Your task to perform on an android device: see sites visited before in the chrome app Image 0: 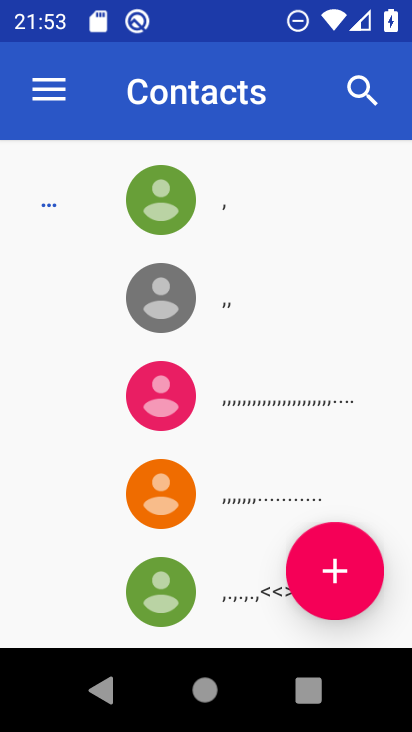
Step 0: press home button
Your task to perform on an android device: see sites visited before in the chrome app Image 1: 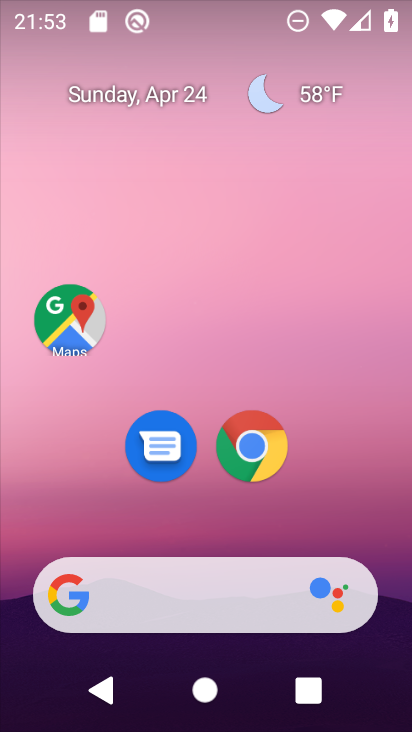
Step 1: click (242, 457)
Your task to perform on an android device: see sites visited before in the chrome app Image 2: 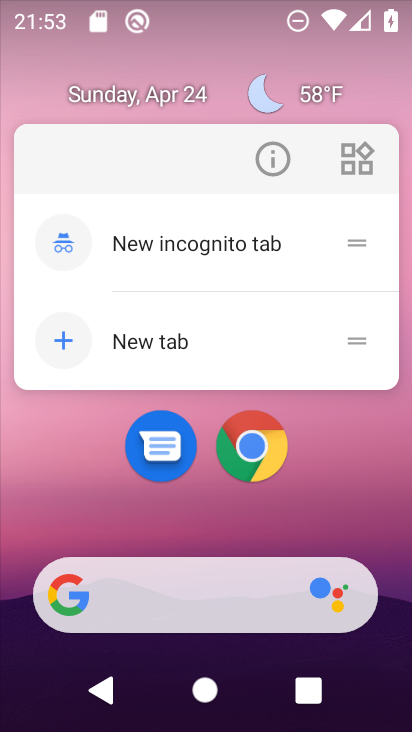
Step 2: click (261, 456)
Your task to perform on an android device: see sites visited before in the chrome app Image 3: 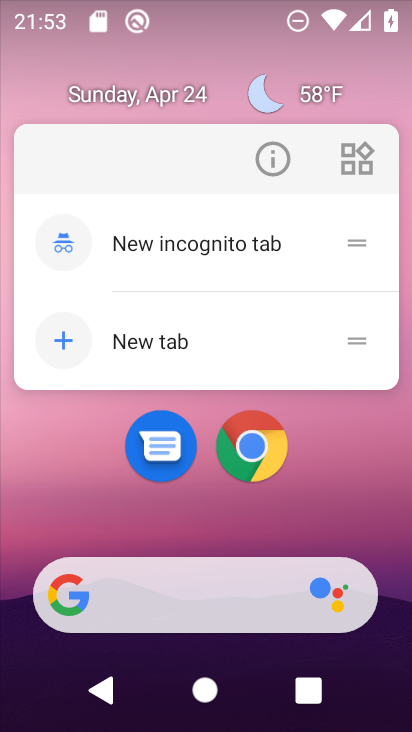
Step 3: click (253, 458)
Your task to perform on an android device: see sites visited before in the chrome app Image 4: 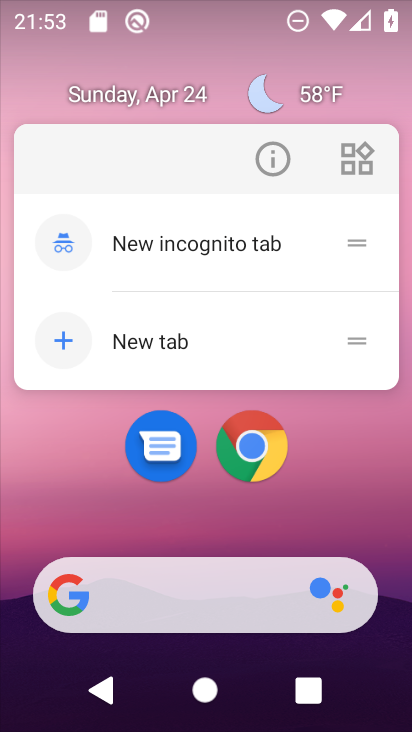
Step 4: click (253, 459)
Your task to perform on an android device: see sites visited before in the chrome app Image 5: 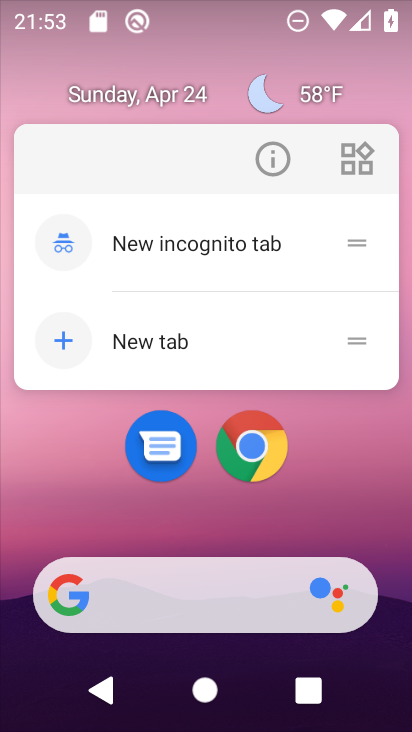
Step 5: click (238, 446)
Your task to perform on an android device: see sites visited before in the chrome app Image 6: 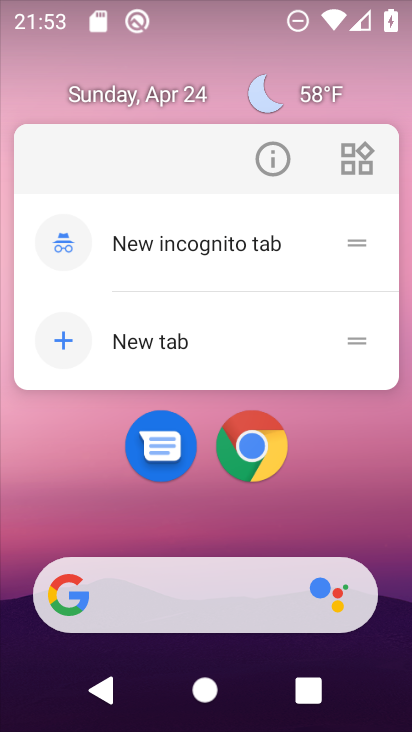
Step 6: click (253, 448)
Your task to perform on an android device: see sites visited before in the chrome app Image 7: 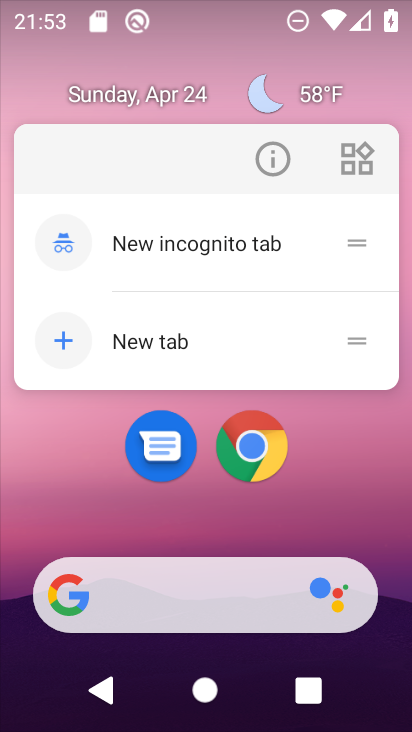
Step 7: click (251, 448)
Your task to perform on an android device: see sites visited before in the chrome app Image 8: 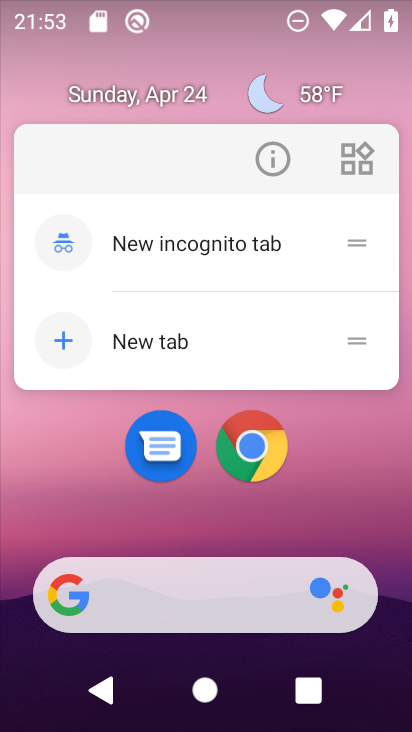
Step 8: click (251, 448)
Your task to perform on an android device: see sites visited before in the chrome app Image 9: 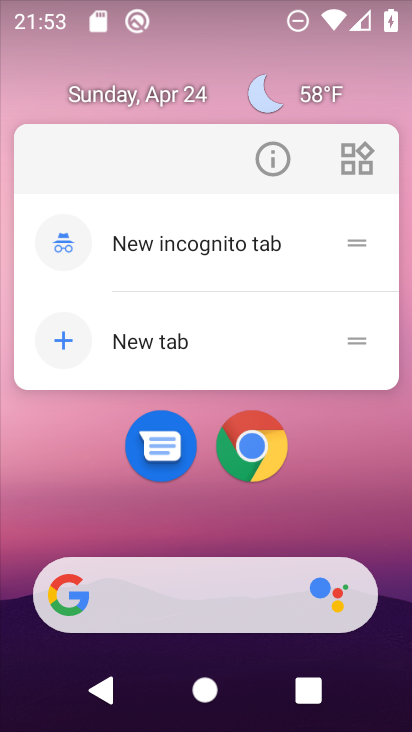
Step 9: click (248, 459)
Your task to perform on an android device: see sites visited before in the chrome app Image 10: 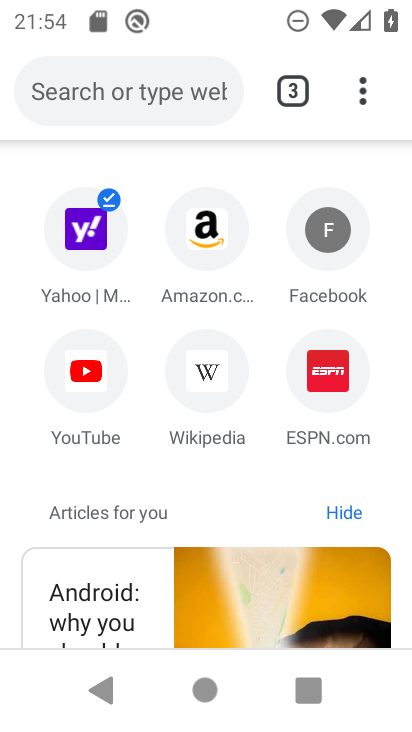
Step 10: drag from (361, 93) to (119, 431)
Your task to perform on an android device: see sites visited before in the chrome app Image 11: 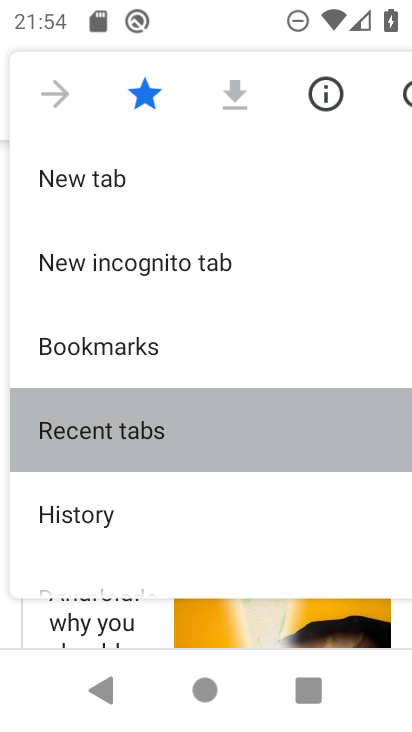
Step 11: click (119, 431)
Your task to perform on an android device: see sites visited before in the chrome app Image 12: 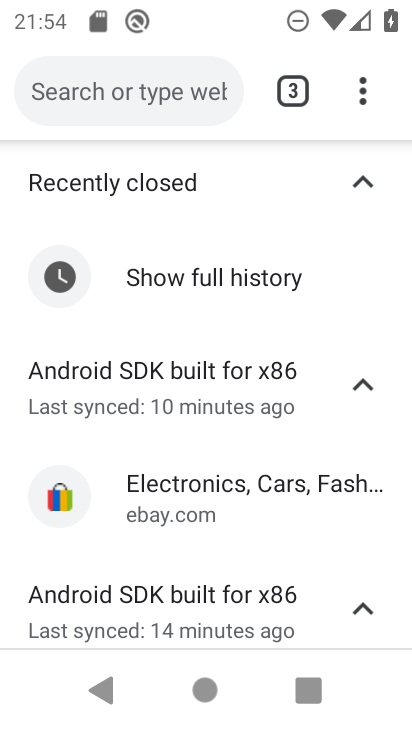
Step 12: task complete